Your task to perform on an android device: Clear the cart on target. Image 0: 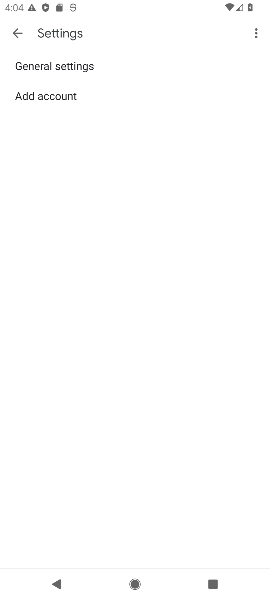
Step 0: press home button
Your task to perform on an android device: Clear the cart on target. Image 1: 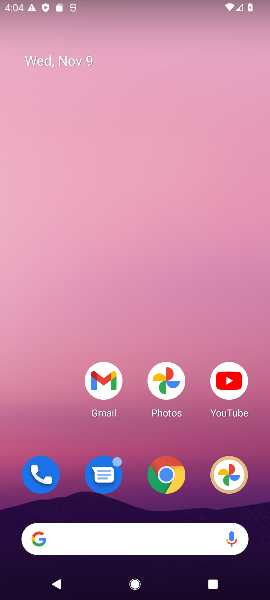
Step 1: drag from (91, 520) to (165, 0)
Your task to perform on an android device: Clear the cart on target. Image 2: 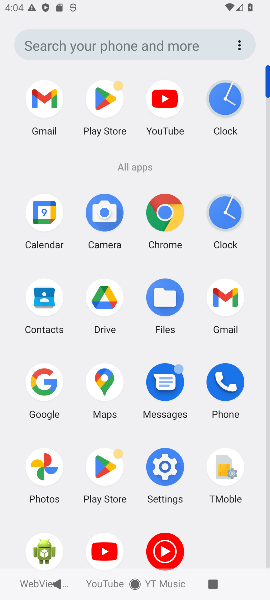
Step 2: click (170, 218)
Your task to perform on an android device: Clear the cart on target. Image 3: 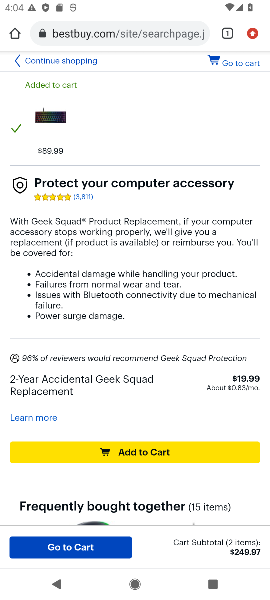
Step 3: click (146, 24)
Your task to perform on an android device: Clear the cart on target. Image 4: 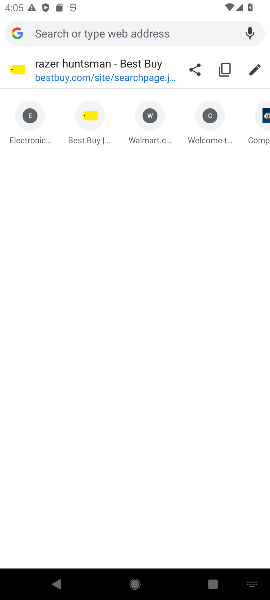
Step 4: type "target"
Your task to perform on an android device: Clear the cart on target. Image 5: 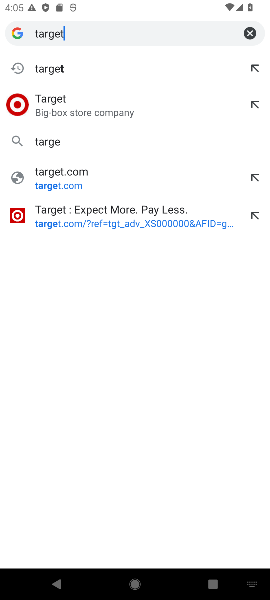
Step 5: press enter
Your task to perform on an android device: Clear the cart on target. Image 6: 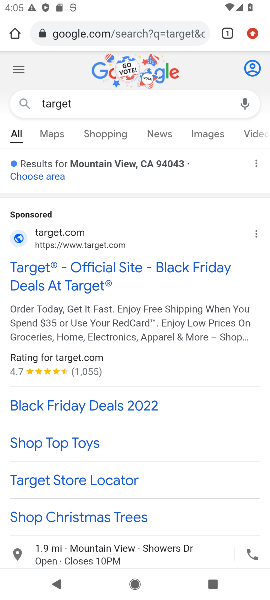
Step 6: click (88, 241)
Your task to perform on an android device: Clear the cart on target. Image 7: 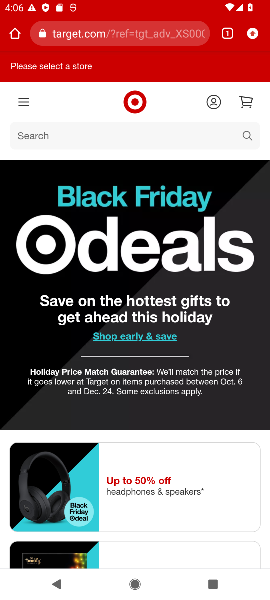
Step 7: click (252, 104)
Your task to perform on an android device: Clear the cart on target. Image 8: 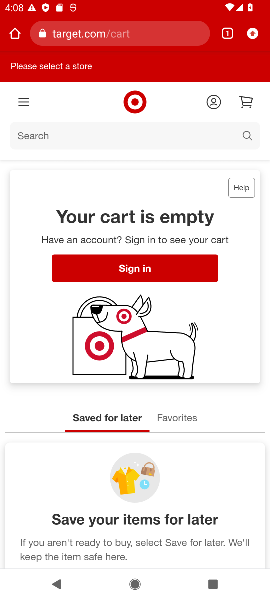
Step 8: task complete